Your task to perform on an android device: change your default location settings in chrome Image 0: 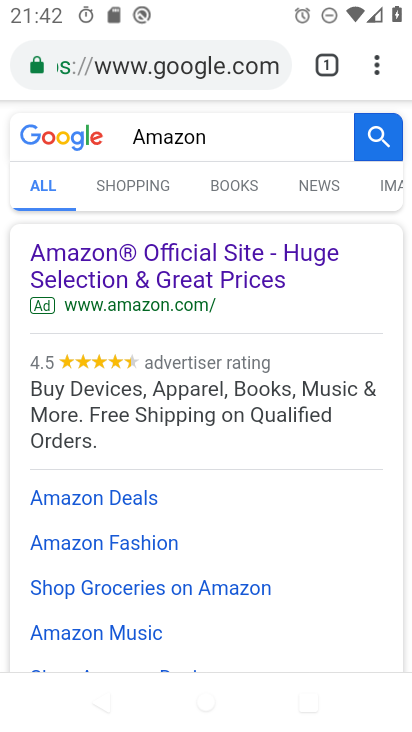
Step 0: press home button
Your task to perform on an android device: change your default location settings in chrome Image 1: 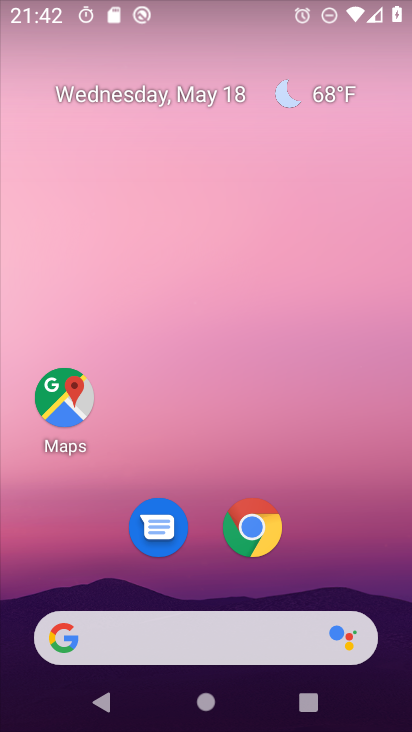
Step 1: click (252, 537)
Your task to perform on an android device: change your default location settings in chrome Image 2: 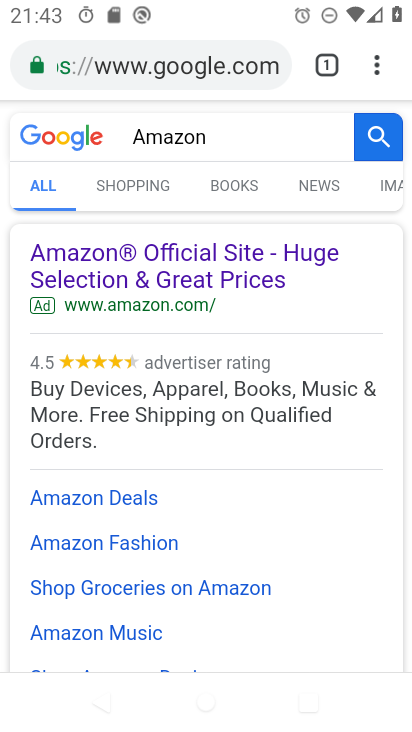
Step 2: click (378, 61)
Your task to perform on an android device: change your default location settings in chrome Image 3: 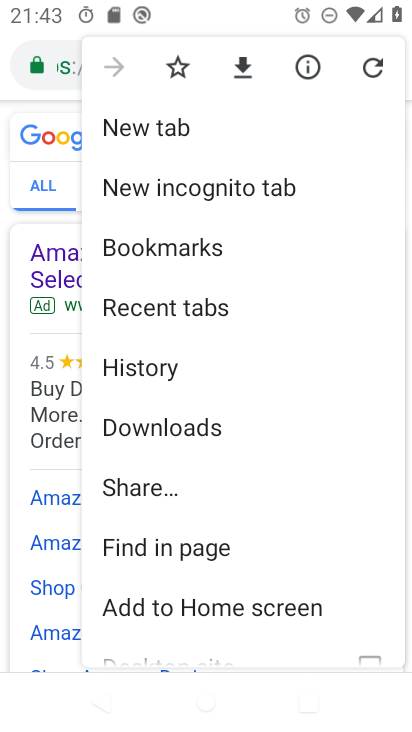
Step 3: drag from (339, 570) to (321, 343)
Your task to perform on an android device: change your default location settings in chrome Image 4: 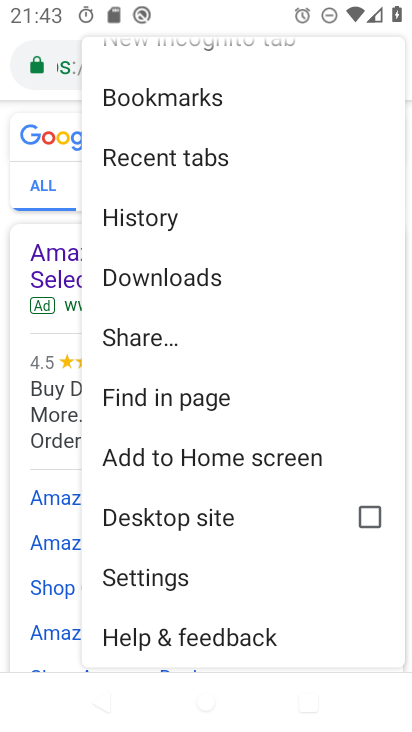
Step 4: drag from (283, 586) to (259, 310)
Your task to perform on an android device: change your default location settings in chrome Image 5: 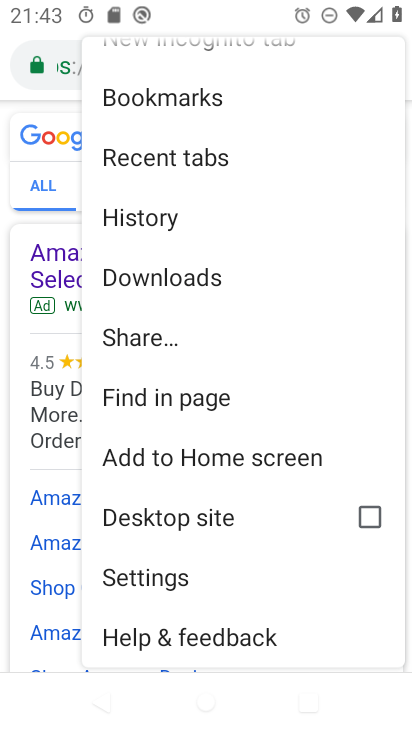
Step 5: click (123, 582)
Your task to perform on an android device: change your default location settings in chrome Image 6: 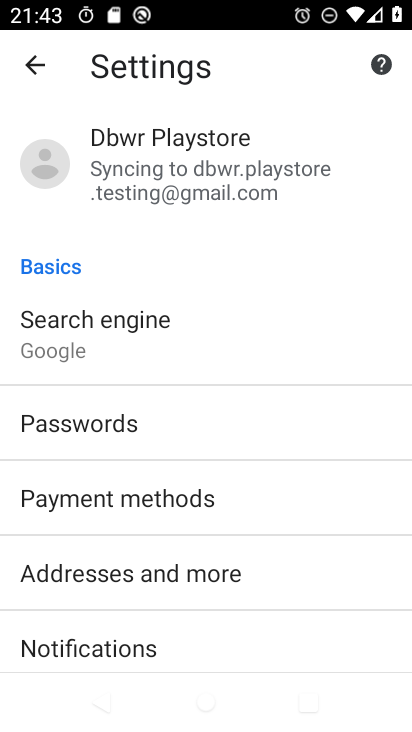
Step 6: drag from (243, 651) to (257, 443)
Your task to perform on an android device: change your default location settings in chrome Image 7: 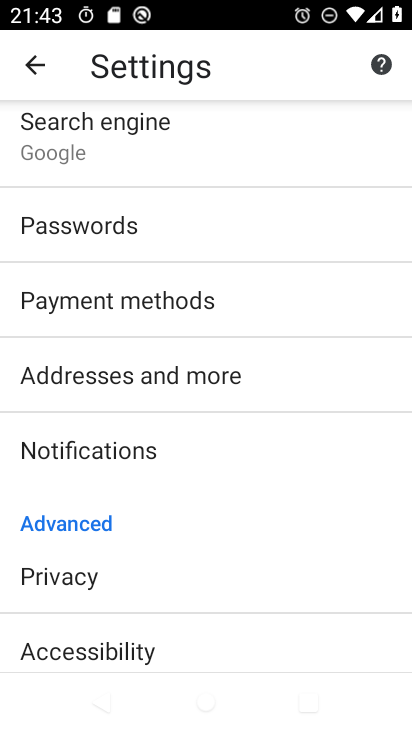
Step 7: drag from (325, 663) to (300, 397)
Your task to perform on an android device: change your default location settings in chrome Image 8: 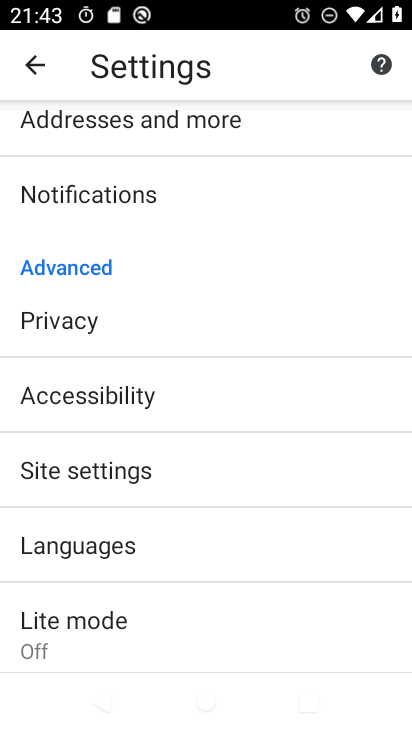
Step 8: click (94, 473)
Your task to perform on an android device: change your default location settings in chrome Image 9: 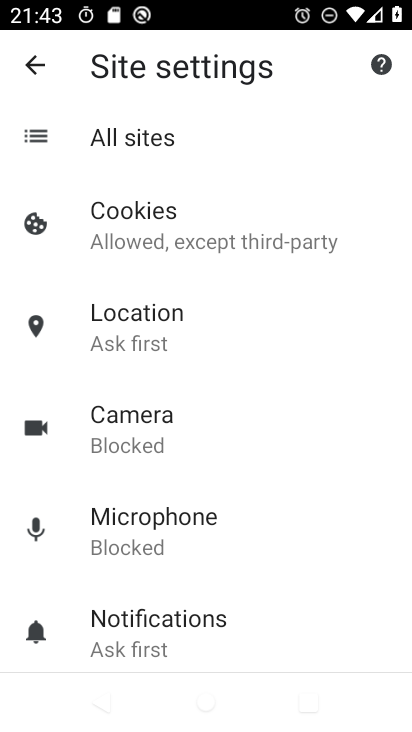
Step 9: click (126, 327)
Your task to perform on an android device: change your default location settings in chrome Image 10: 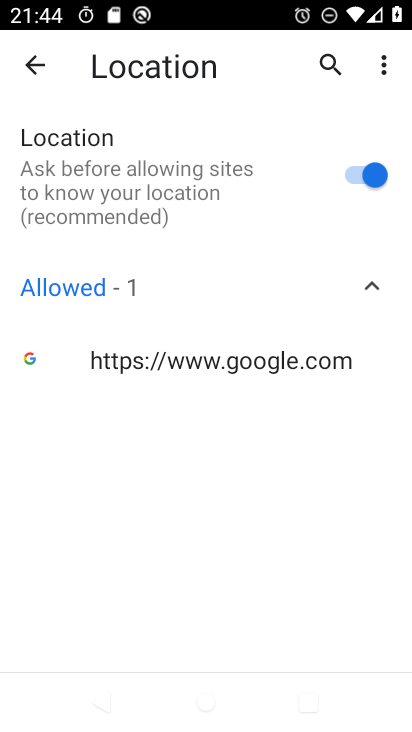
Step 10: task complete